Your task to perform on an android device: Toggle the flashlight Image 0: 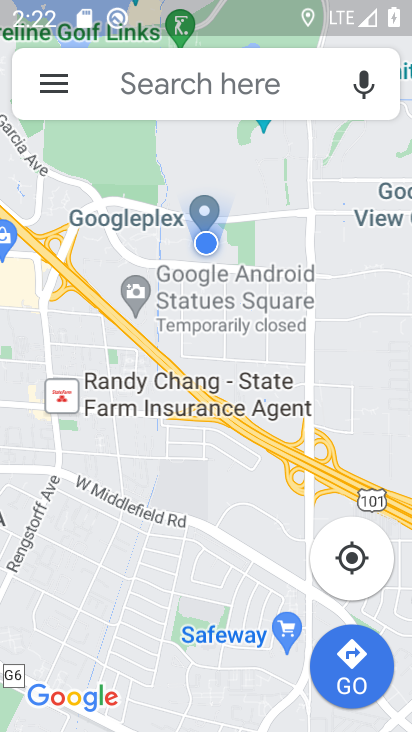
Step 0: press home button
Your task to perform on an android device: Toggle the flashlight Image 1: 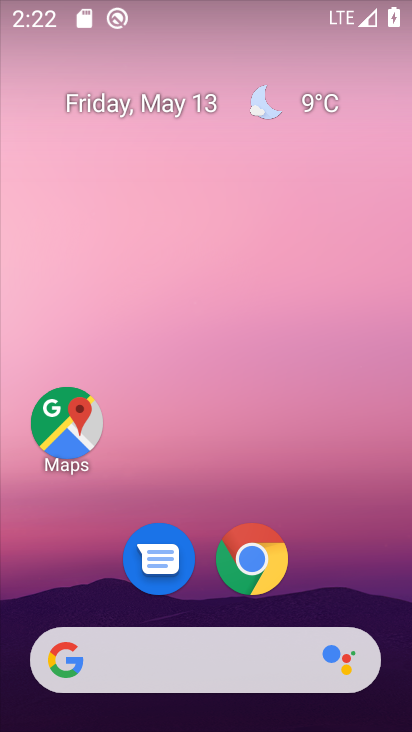
Step 1: click (359, 344)
Your task to perform on an android device: Toggle the flashlight Image 2: 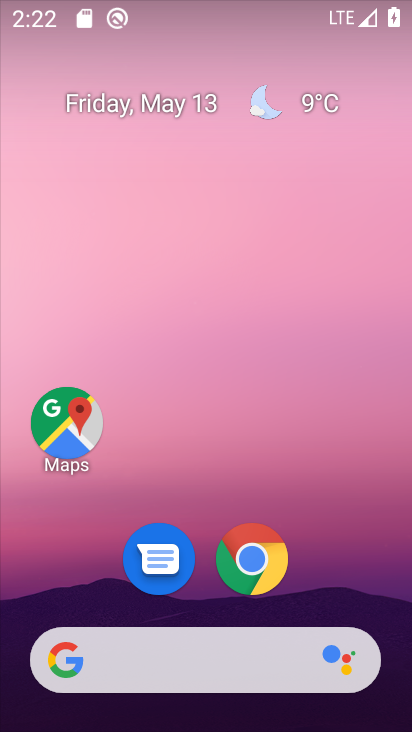
Step 2: drag from (411, 651) to (340, 386)
Your task to perform on an android device: Toggle the flashlight Image 3: 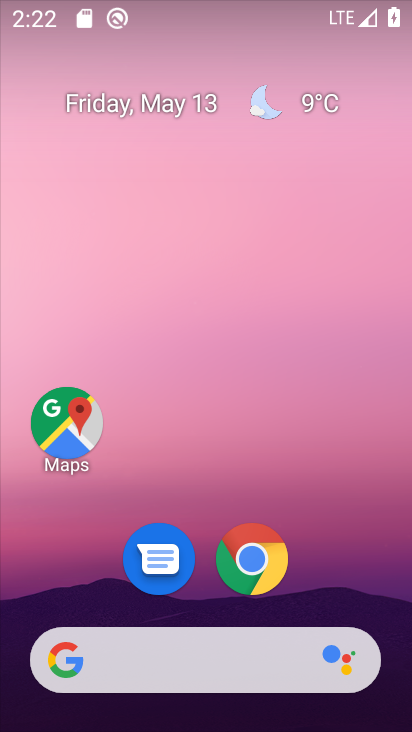
Step 3: drag from (394, 668) to (342, 357)
Your task to perform on an android device: Toggle the flashlight Image 4: 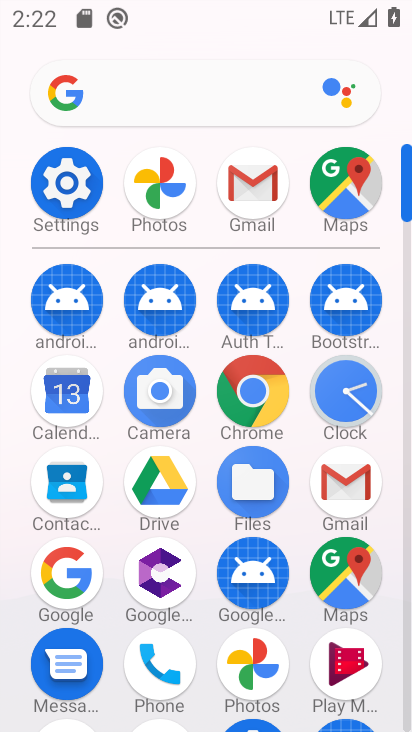
Step 4: click (47, 161)
Your task to perform on an android device: Toggle the flashlight Image 5: 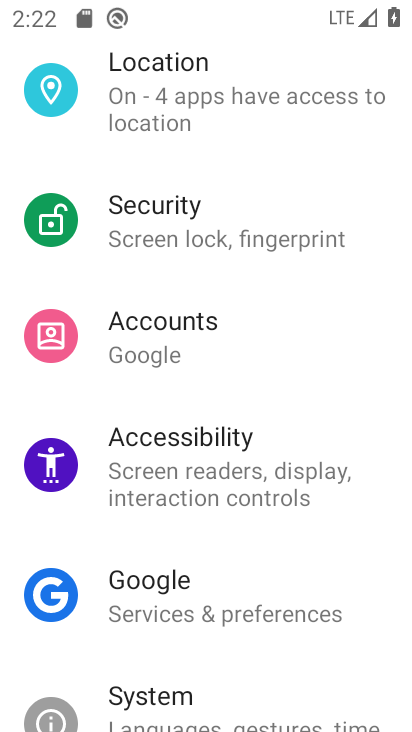
Step 5: drag from (316, 73) to (397, 409)
Your task to perform on an android device: Toggle the flashlight Image 6: 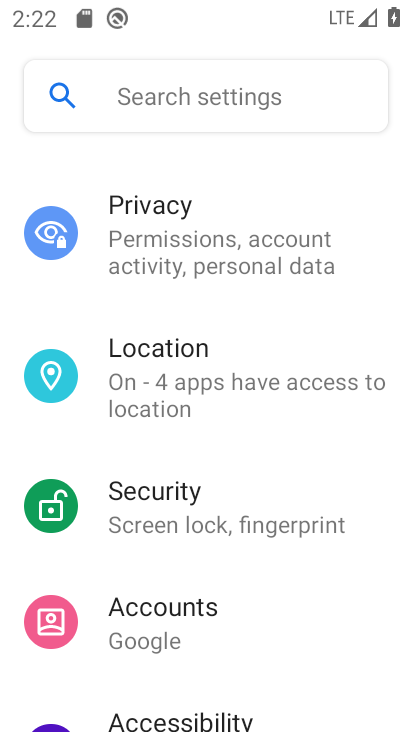
Step 6: drag from (285, 251) to (321, 531)
Your task to perform on an android device: Toggle the flashlight Image 7: 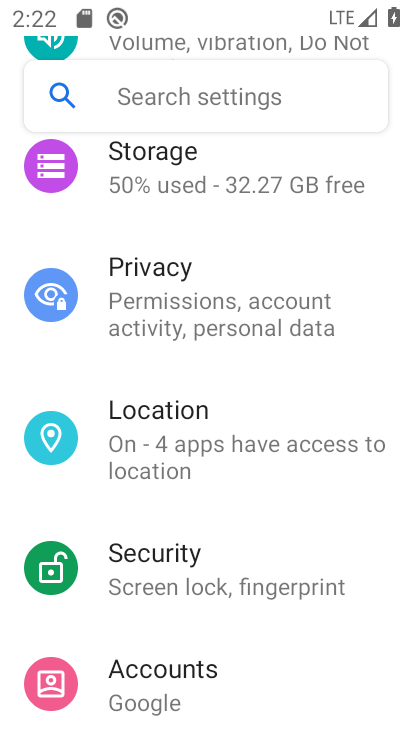
Step 7: drag from (273, 157) to (295, 475)
Your task to perform on an android device: Toggle the flashlight Image 8: 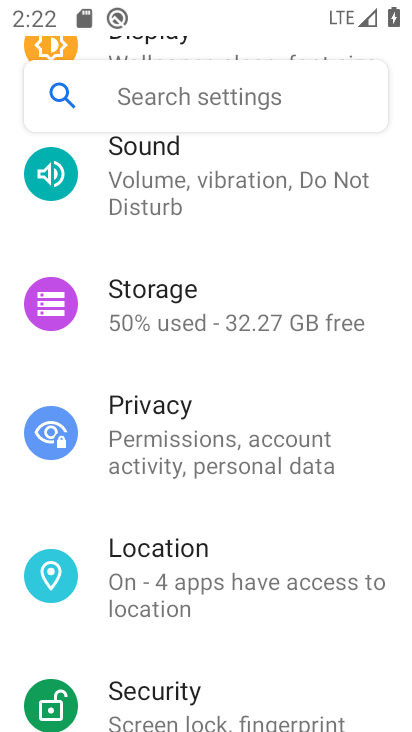
Step 8: drag from (245, 148) to (288, 410)
Your task to perform on an android device: Toggle the flashlight Image 9: 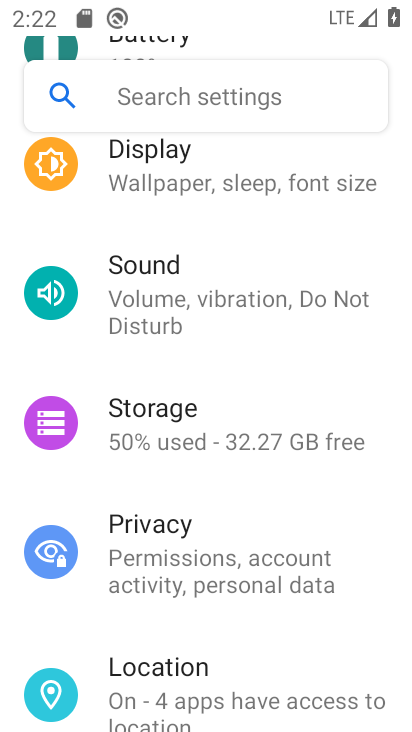
Step 9: click (153, 170)
Your task to perform on an android device: Toggle the flashlight Image 10: 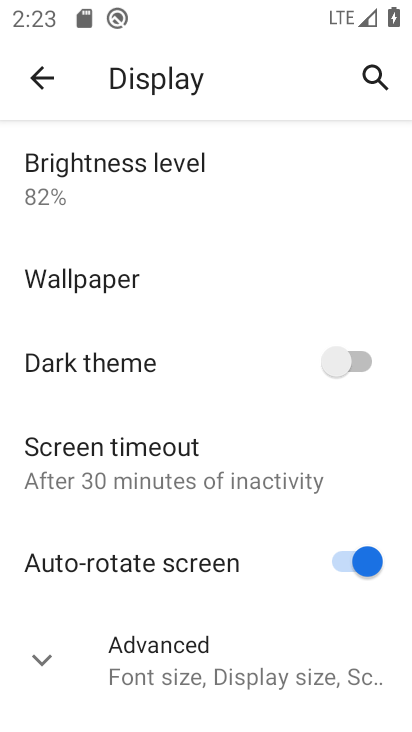
Step 10: task complete